Your task to perform on an android device: stop showing notifications on the lock screen Image 0: 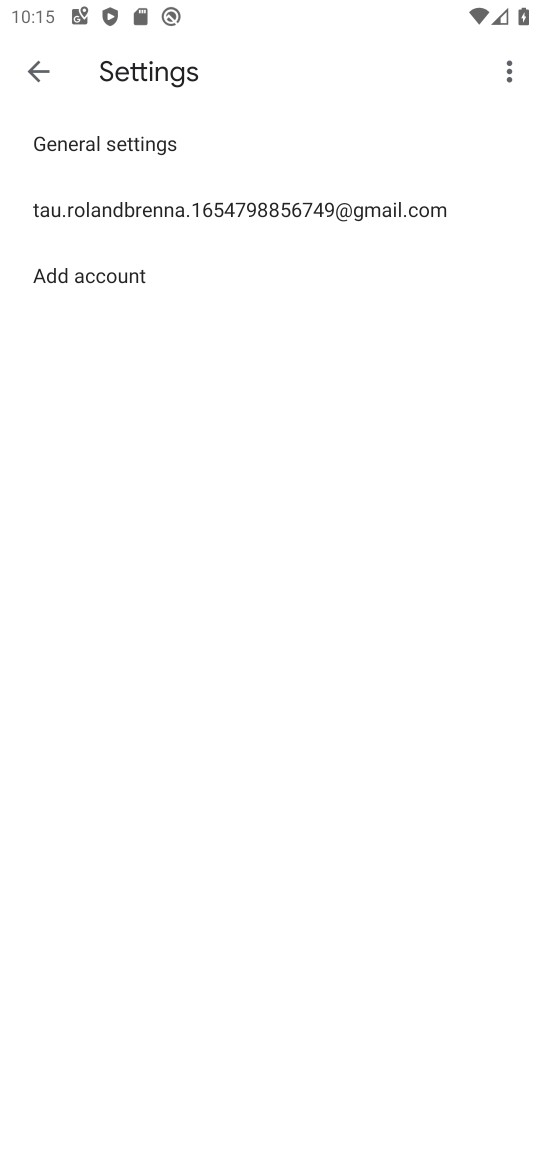
Step 0: press home button
Your task to perform on an android device: stop showing notifications on the lock screen Image 1: 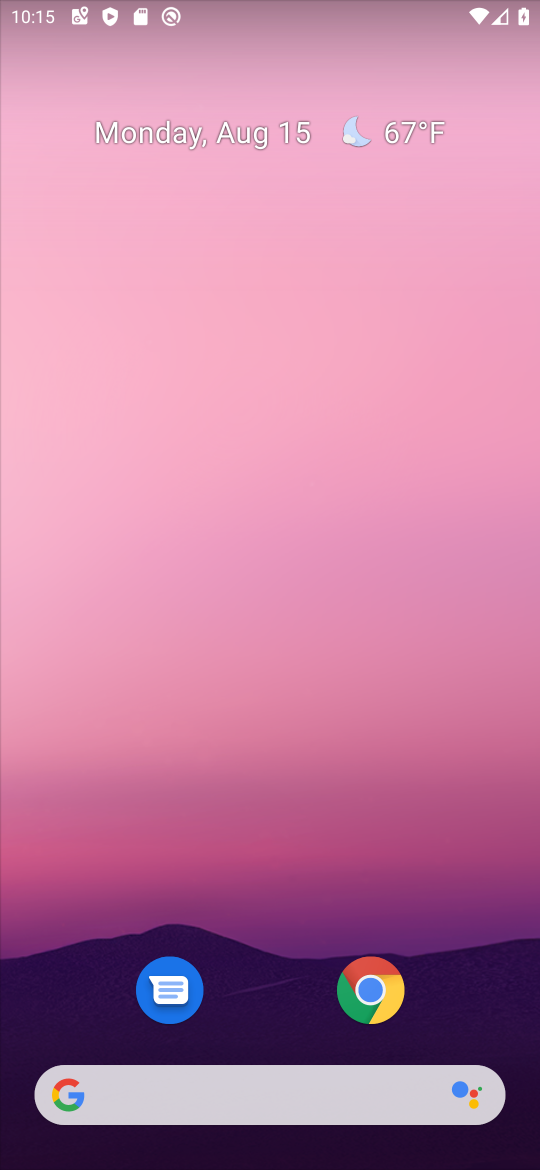
Step 1: drag from (274, 938) to (254, 177)
Your task to perform on an android device: stop showing notifications on the lock screen Image 2: 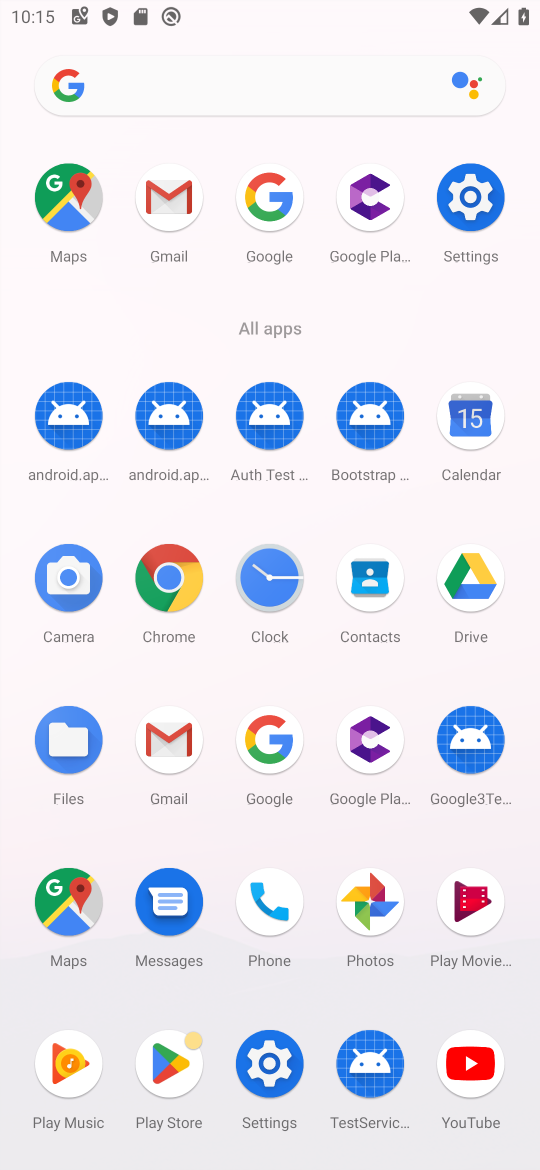
Step 2: click (477, 193)
Your task to perform on an android device: stop showing notifications on the lock screen Image 3: 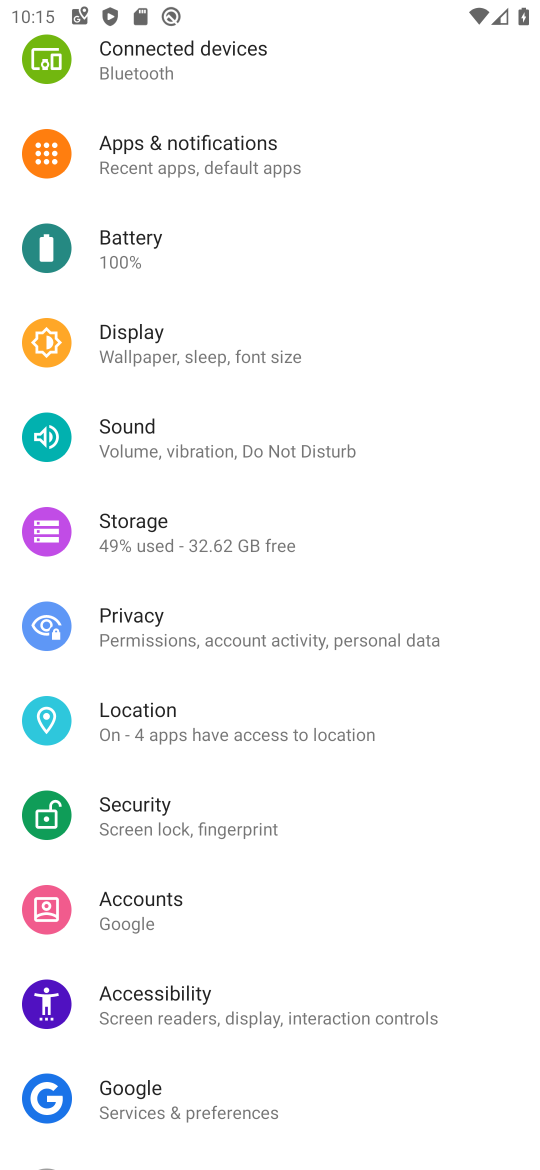
Step 3: click (199, 138)
Your task to perform on an android device: stop showing notifications on the lock screen Image 4: 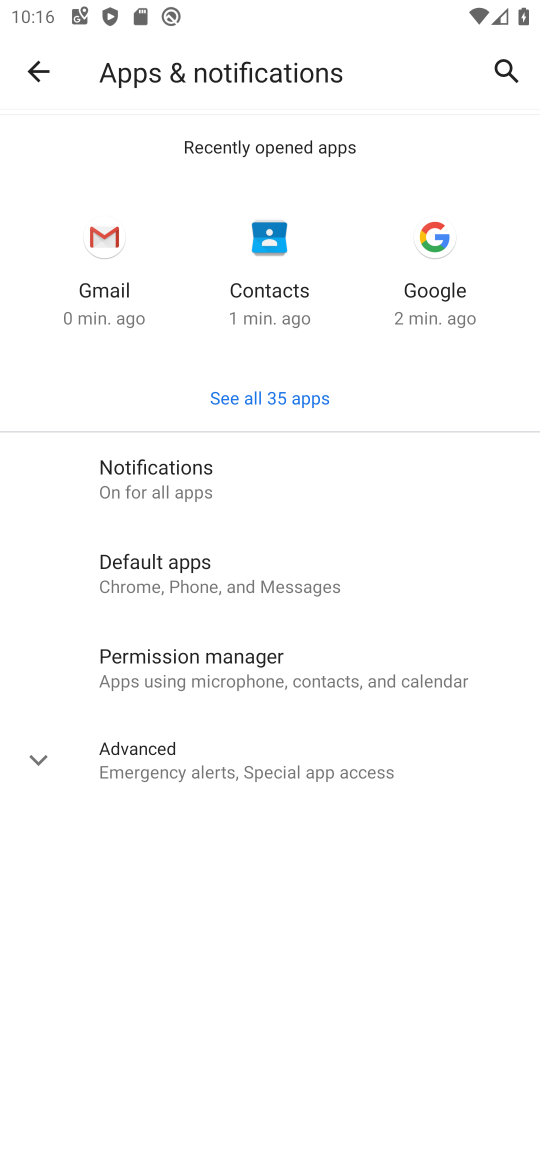
Step 4: click (162, 455)
Your task to perform on an android device: stop showing notifications on the lock screen Image 5: 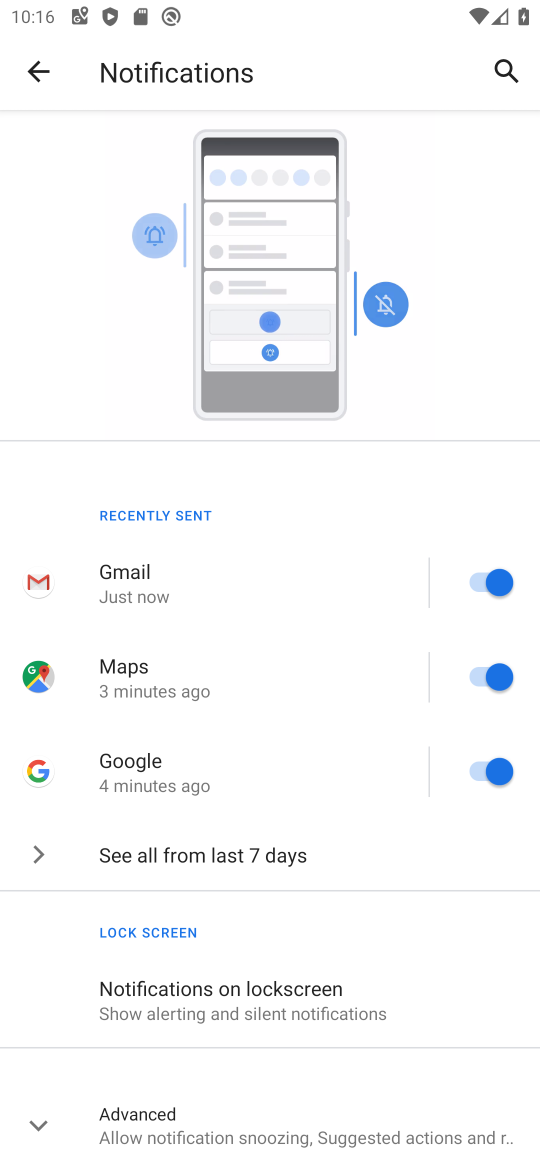
Step 5: click (237, 982)
Your task to perform on an android device: stop showing notifications on the lock screen Image 6: 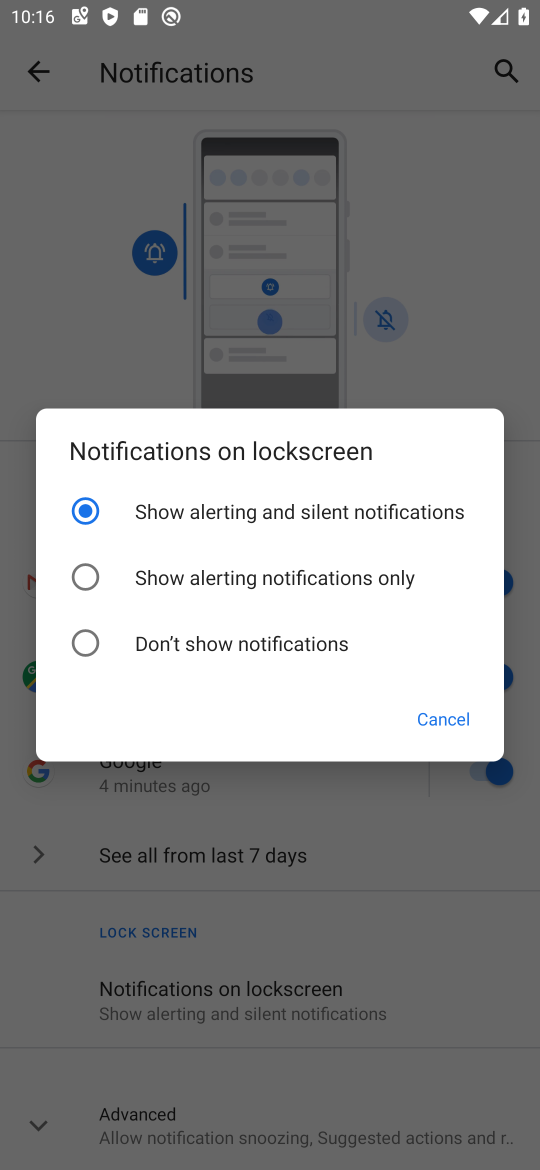
Step 6: click (75, 646)
Your task to perform on an android device: stop showing notifications on the lock screen Image 7: 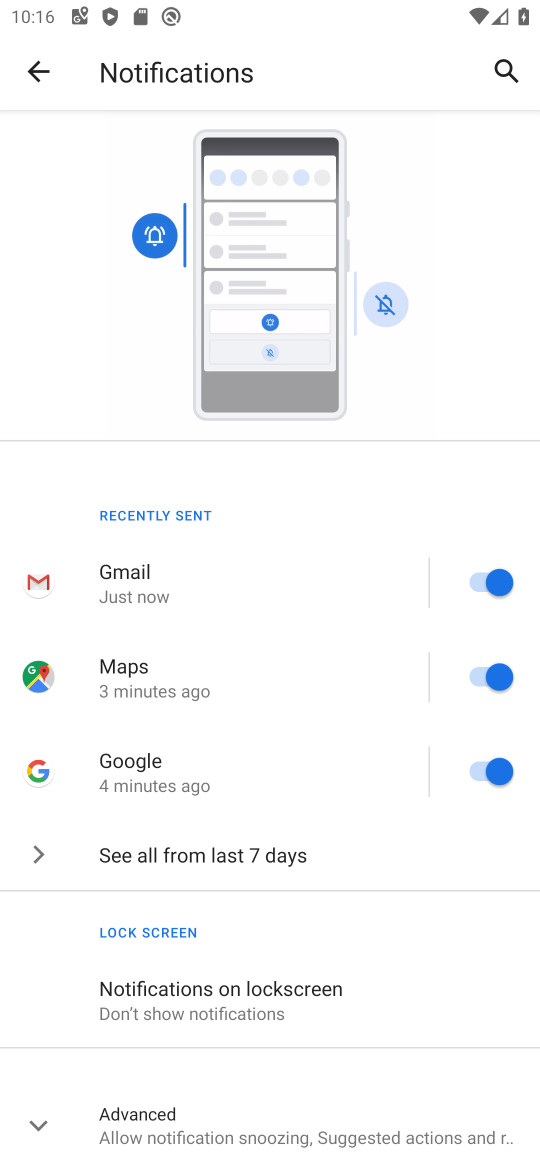
Step 7: task complete